Your task to perform on an android device: see sites visited before in the chrome app Image 0: 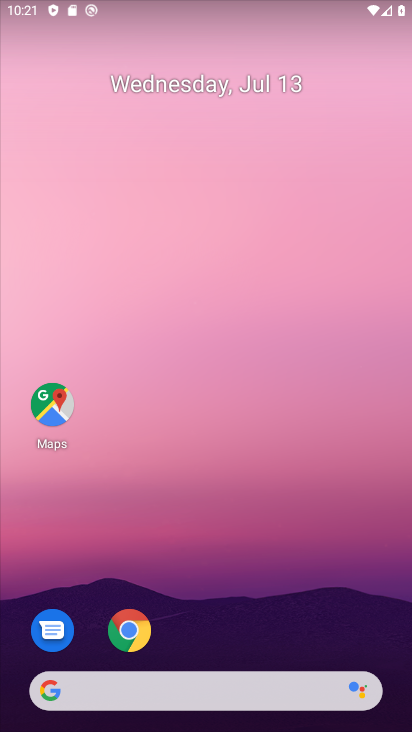
Step 0: drag from (257, 626) to (146, 15)
Your task to perform on an android device: see sites visited before in the chrome app Image 1: 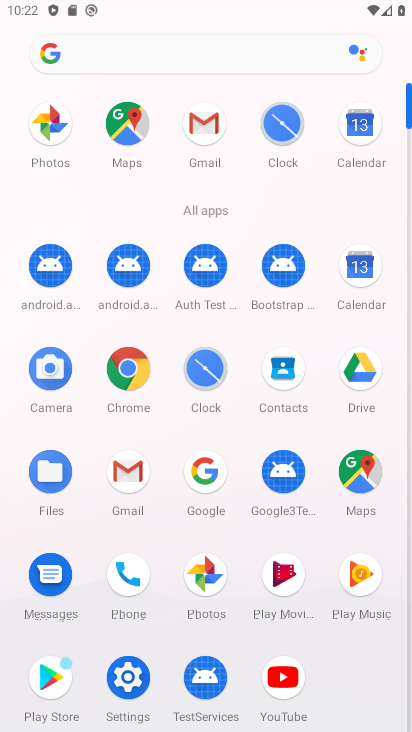
Step 1: click (133, 372)
Your task to perform on an android device: see sites visited before in the chrome app Image 2: 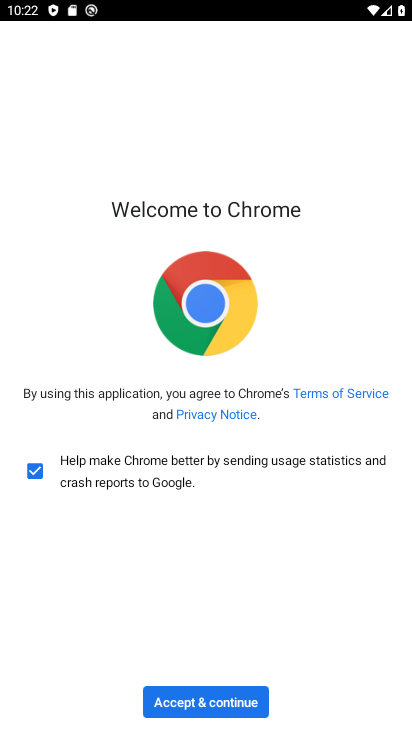
Step 2: click (188, 705)
Your task to perform on an android device: see sites visited before in the chrome app Image 3: 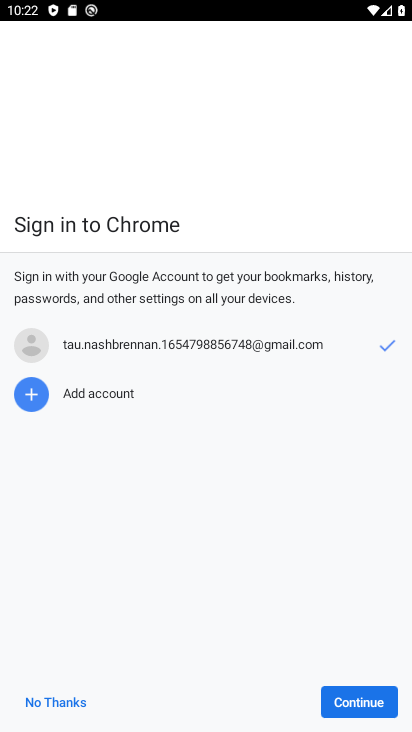
Step 3: click (386, 710)
Your task to perform on an android device: see sites visited before in the chrome app Image 4: 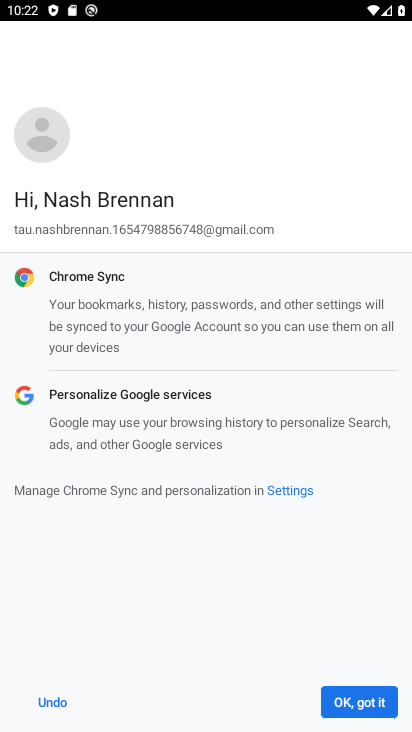
Step 4: click (359, 708)
Your task to perform on an android device: see sites visited before in the chrome app Image 5: 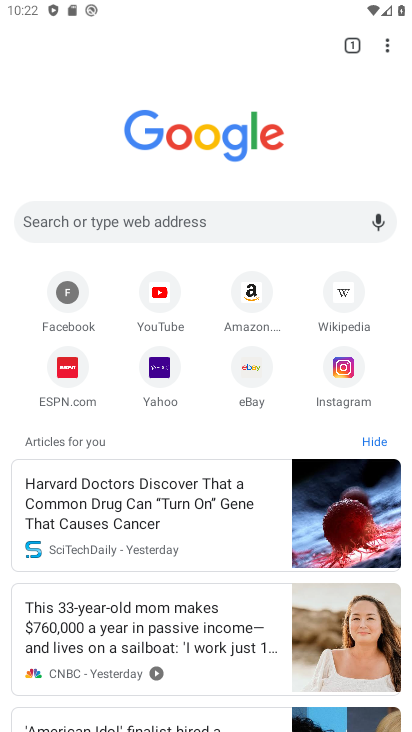
Step 5: click (393, 41)
Your task to perform on an android device: see sites visited before in the chrome app Image 6: 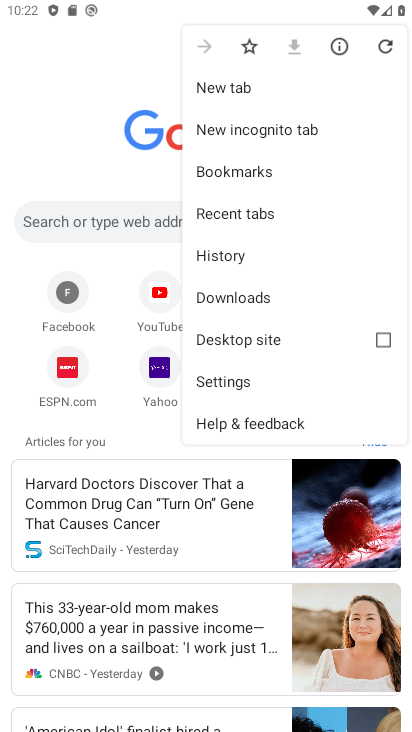
Step 6: click (248, 258)
Your task to perform on an android device: see sites visited before in the chrome app Image 7: 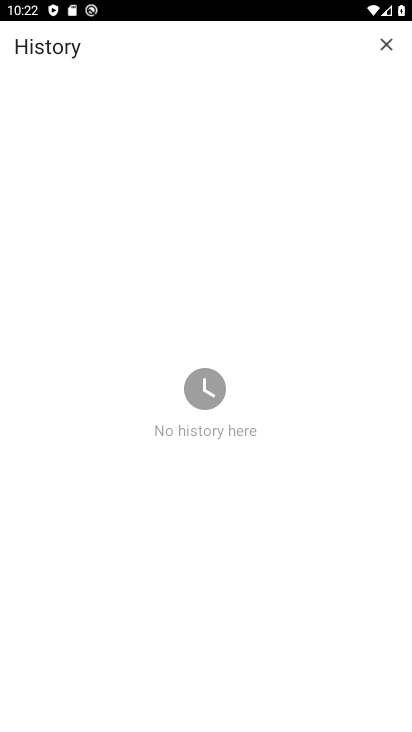
Step 7: task complete